Your task to perform on an android device: Open location settings Image 0: 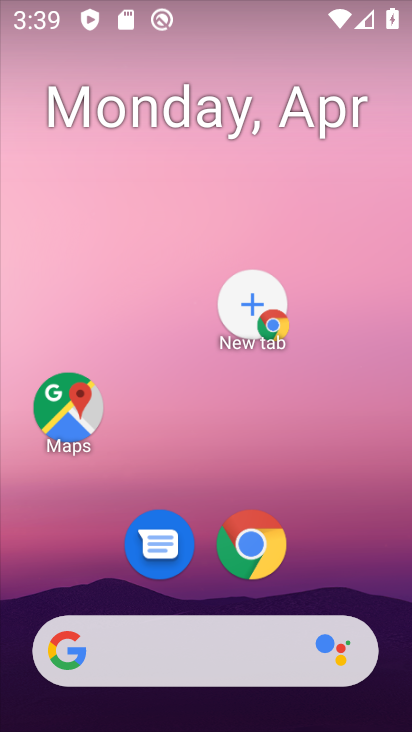
Step 0: drag from (349, 609) to (296, 10)
Your task to perform on an android device: Open location settings Image 1: 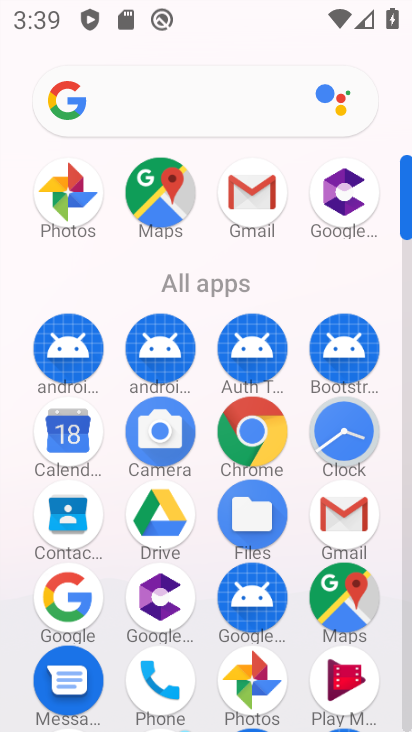
Step 1: drag from (190, 607) to (184, 133)
Your task to perform on an android device: Open location settings Image 2: 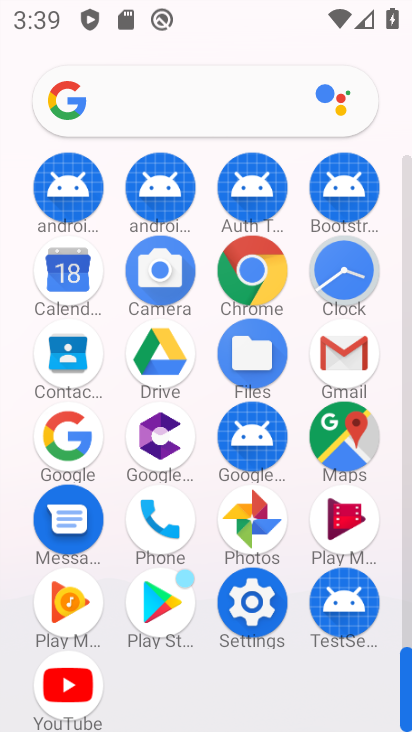
Step 2: click (251, 594)
Your task to perform on an android device: Open location settings Image 3: 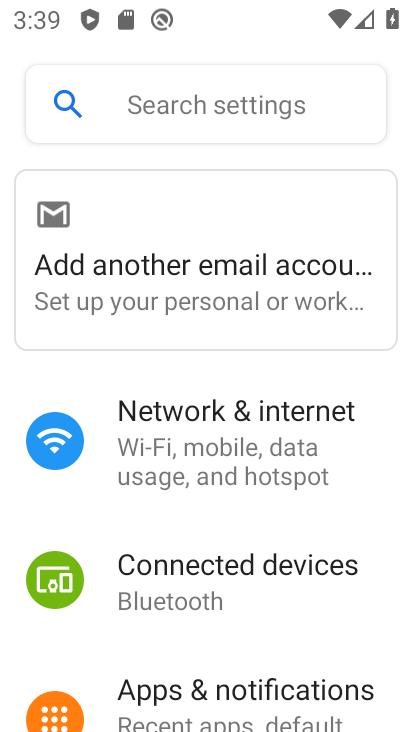
Step 3: drag from (204, 635) to (187, 73)
Your task to perform on an android device: Open location settings Image 4: 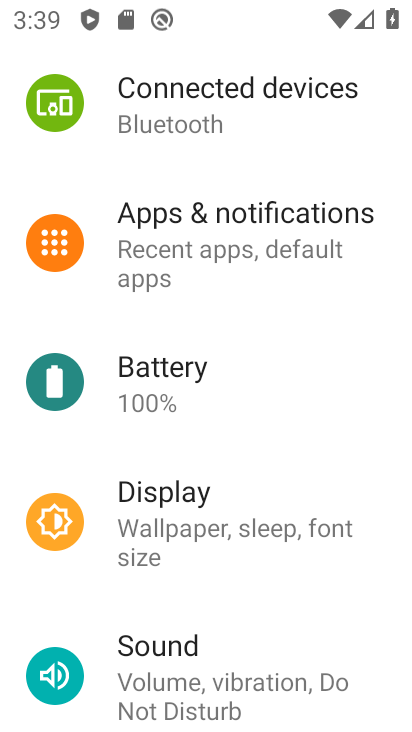
Step 4: drag from (252, 639) to (236, 101)
Your task to perform on an android device: Open location settings Image 5: 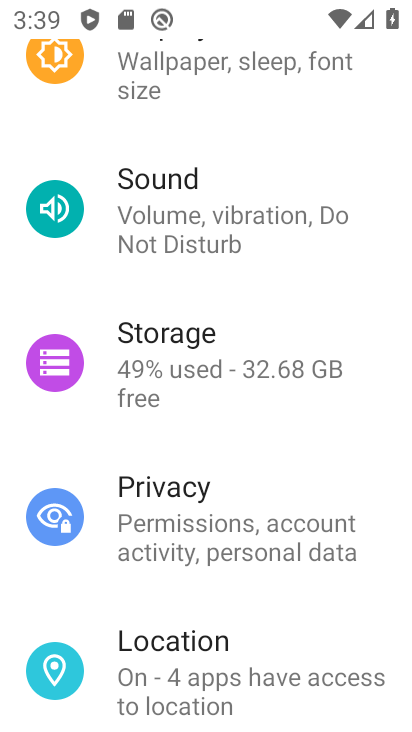
Step 5: drag from (204, 573) to (198, 299)
Your task to perform on an android device: Open location settings Image 6: 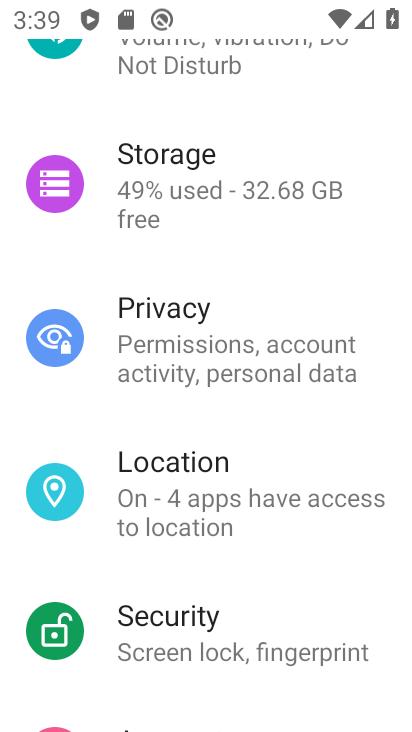
Step 6: click (245, 472)
Your task to perform on an android device: Open location settings Image 7: 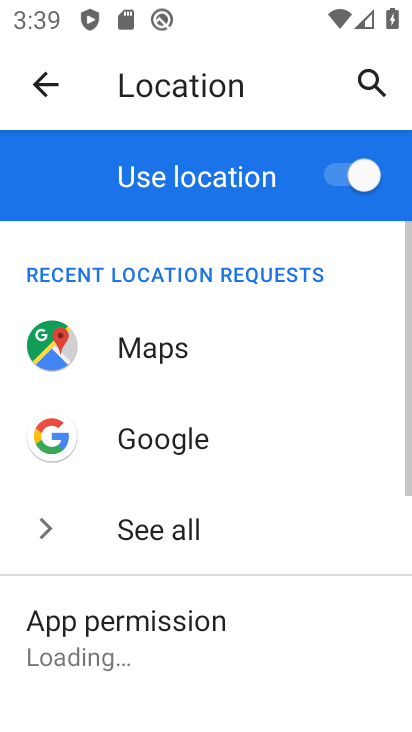
Step 7: drag from (238, 666) to (195, 226)
Your task to perform on an android device: Open location settings Image 8: 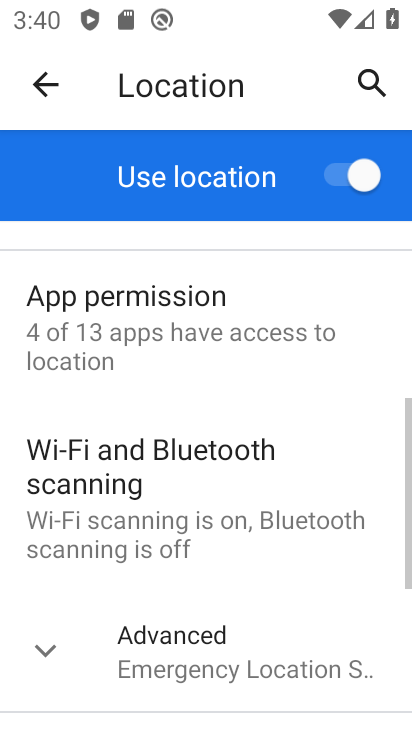
Step 8: click (219, 657)
Your task to perform on an android device: Open location settings Image 9: 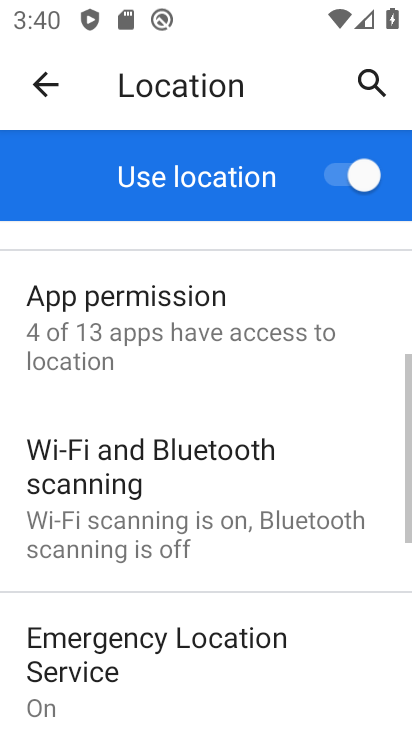
Step 9: task complete